Your task to perform on an android device: What's the weather going to be tomorrow? Image 0: 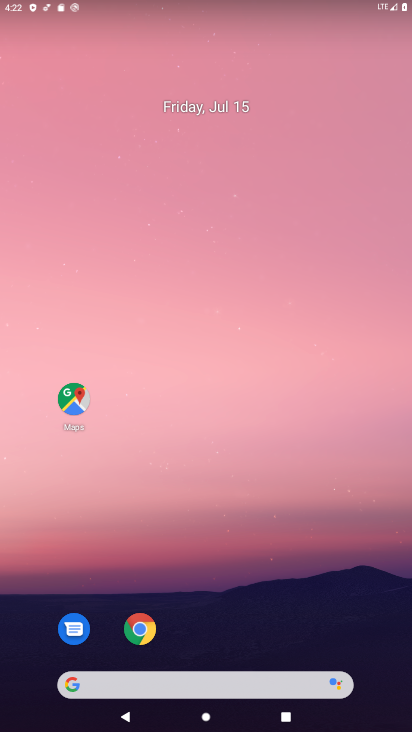
Step 0: drag from (188, 602) to (234, 85)
Your task to perform on an android device: What's the weather going to be tomorrow? Image 1: 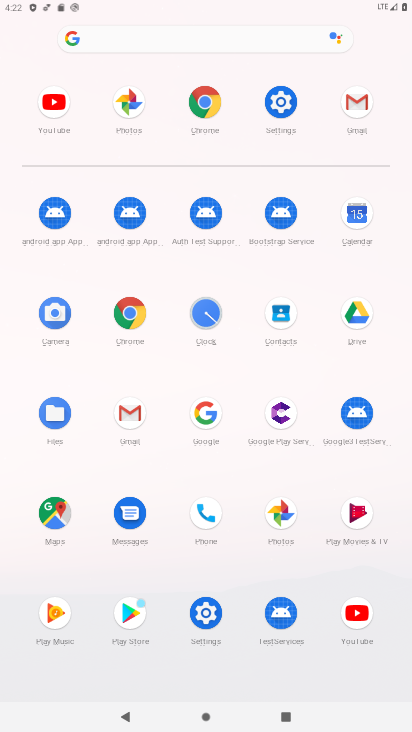
Step 1: click (210, 426)
Your task to perform on an android device: What's the weather going to be tomorrow? Image 2: 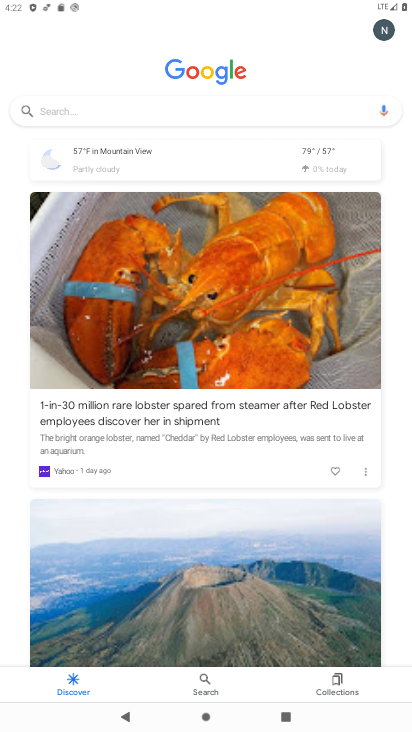
Step 2: click (178, 110)
Your task to perform on an android device: What's the weather going to be tomorrow? Image 3: 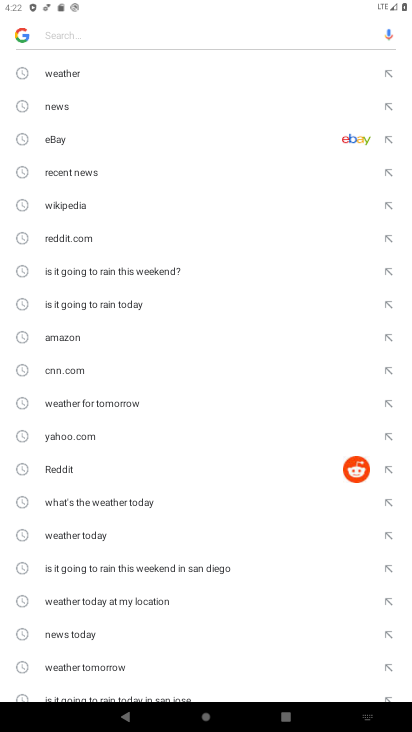
Step 3: click (54, 77)
Your task to perform on an android device: What's the weather going to be tomorrow? Image 4: 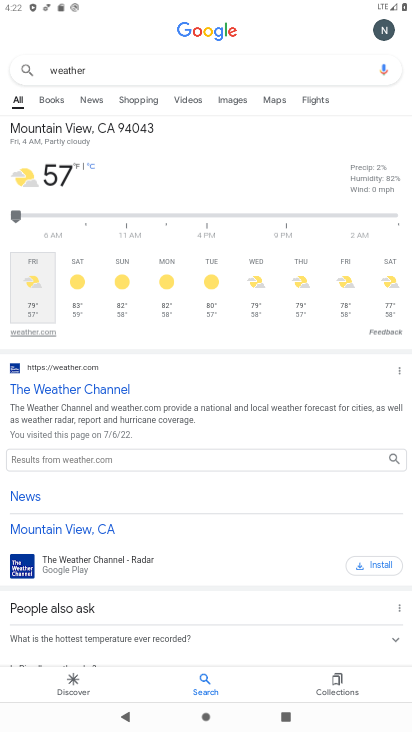
Step 4: click (29, 334)
Your task to perform on an android device: What's the weather going to be tomorrow? Image 5: 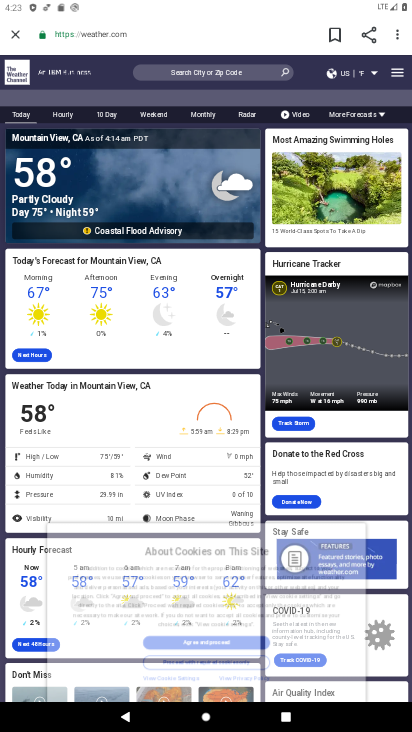
Step 5: task complete